Your task to perform on an android device: Go to Yahoo.com Image 0: 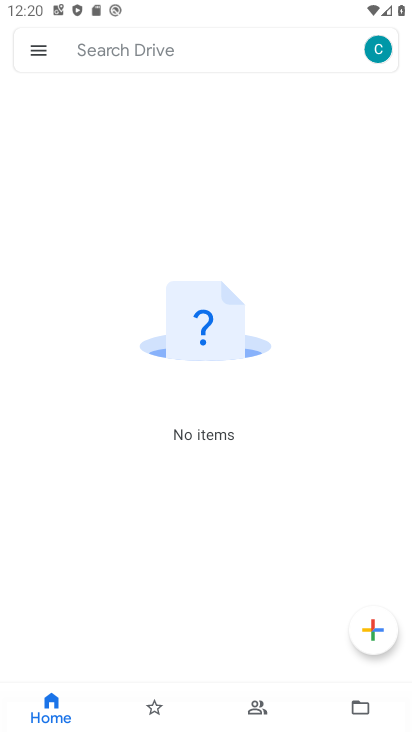
Step 0: press home button
Your task to perform on an android device: Go to Yahoo.com Image 1: 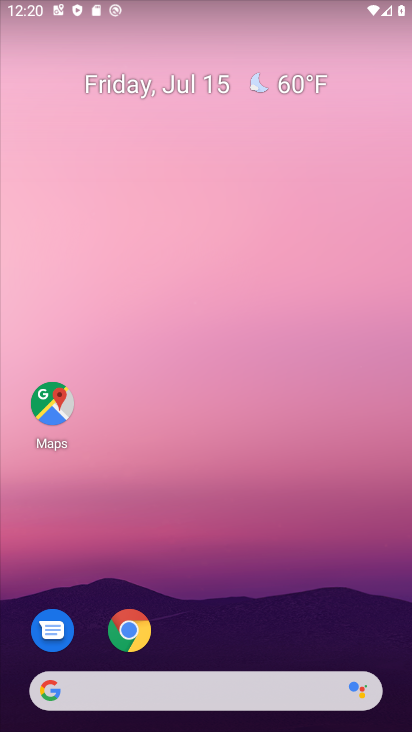
Step 1: click (101, 696)
Your task to perform on an android device: Go to Yahoo.com Image 2: 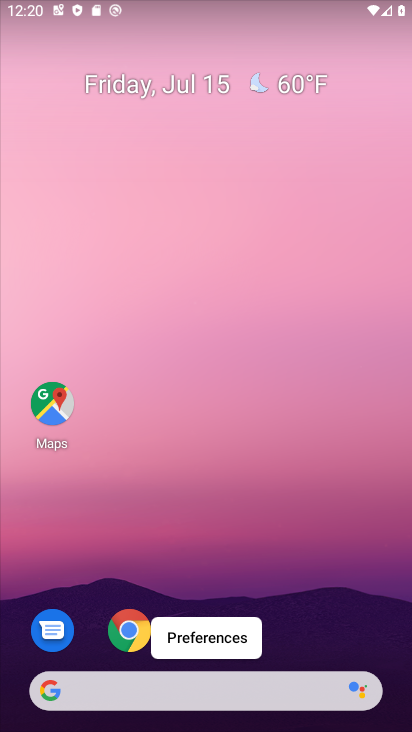
Step 2: click (113, 691)
Your task to perform on an android device: Go to Yahoo.com Image 3: 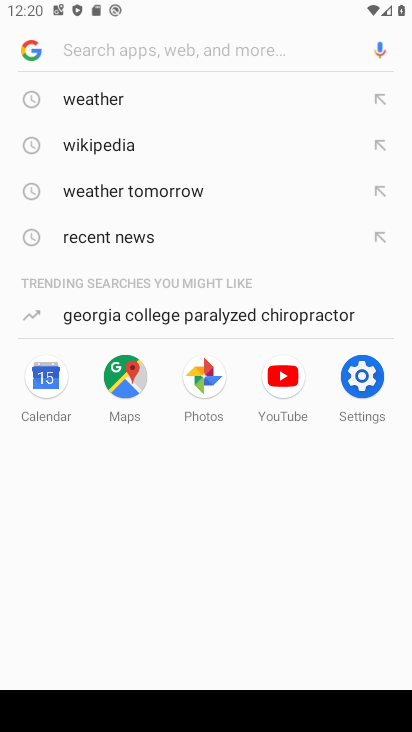
Step 3: type "Yahoo.com"
Your task to perform on an android device: Go to Yahoo.com Image 4: 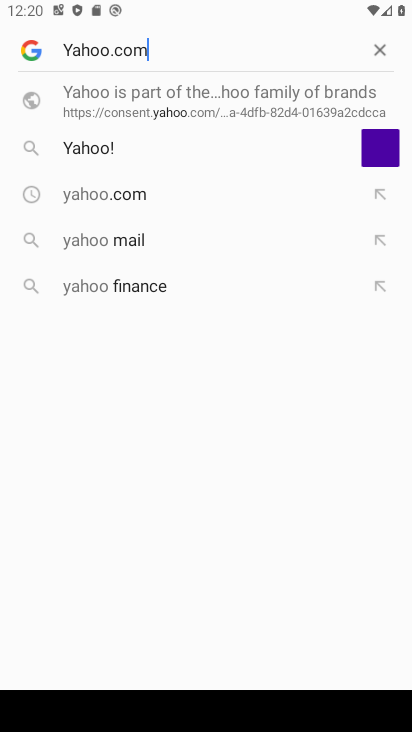
Step 4: type ""
Your task to perform on an android device: Go to Yahoo.com Image 5: 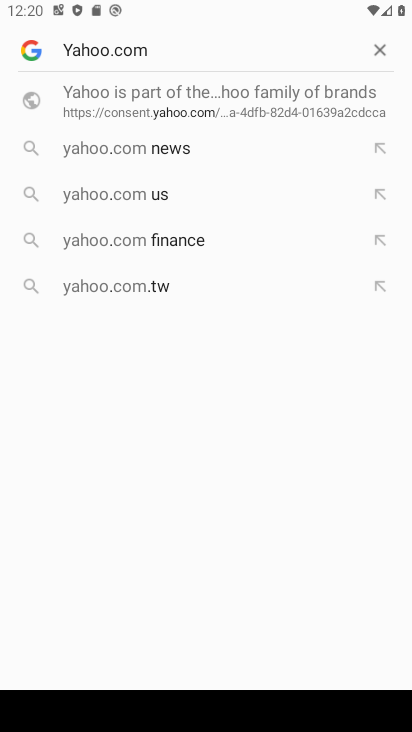
Step 5: task complete